Your task to perform on an android device: stop showing notifications on the lock screen Image 0: 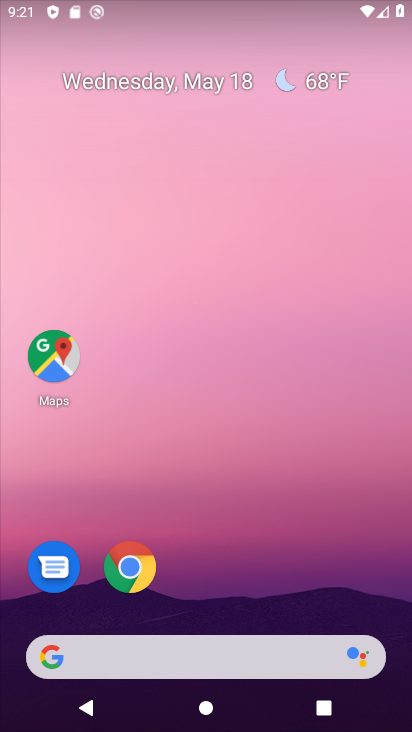
Step 0: drag from (229, 585) to (212, 169)
Your task to perform on an android device: stop showing notifications on the lock screen Image 1: 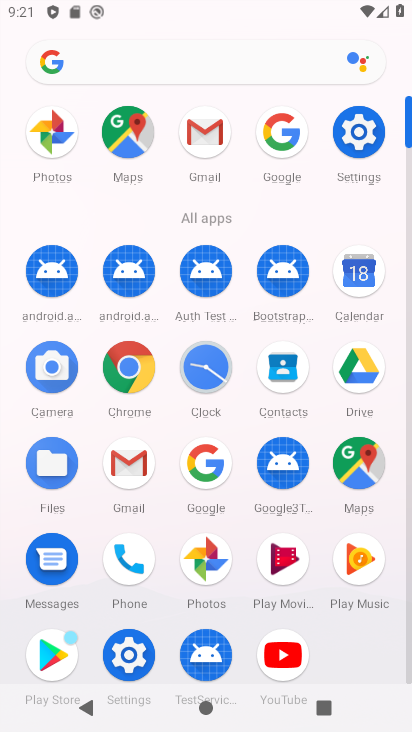
Step 1: click (368, 128)
Your task to perform on an android device: stop showing notifications on the lock screen Image 2: 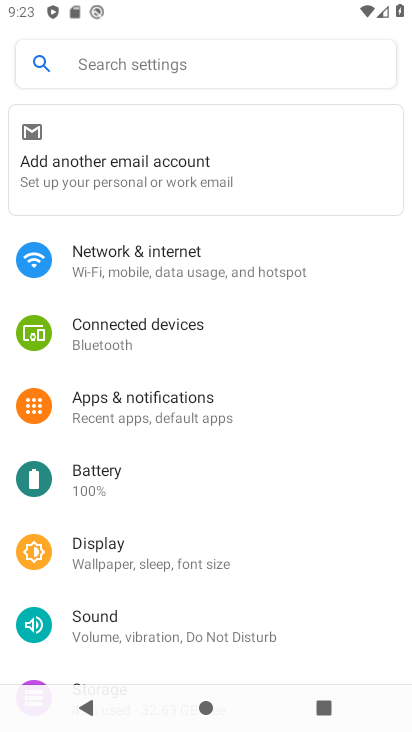
Step 2: click (231, 420)
Your task to perform on an android device: stop showing notifications on the lock screen Image 3: 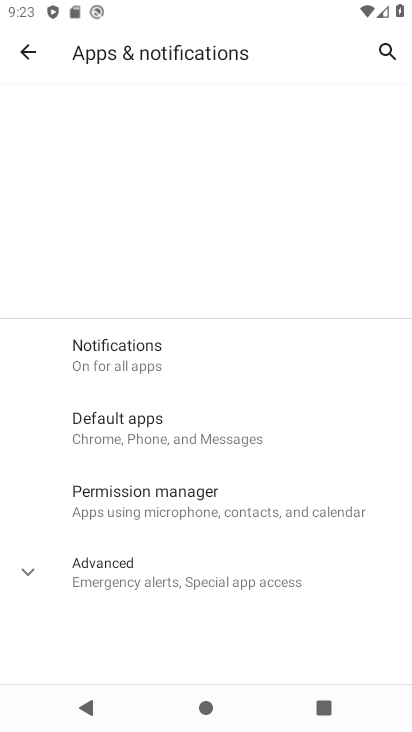
Step 3: click (127, 368)
Your task to perform on an android device: stop showing notifications on the lock screen Image 4: 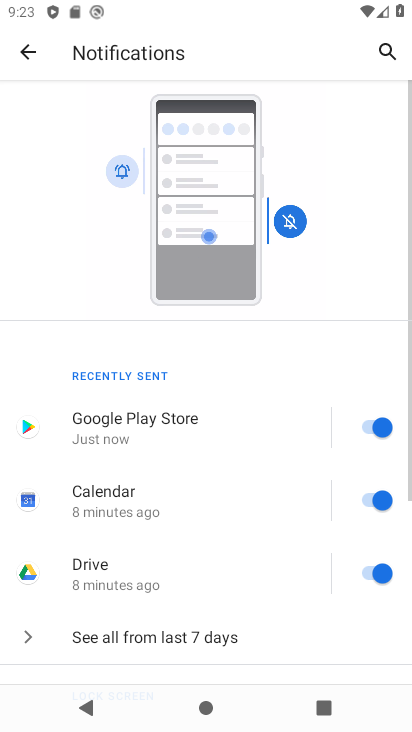
Step 4: drag from (192, 514) to (151, 196)
Your task to perform on an android device: stop showing notifications on the lock screen Image 5: 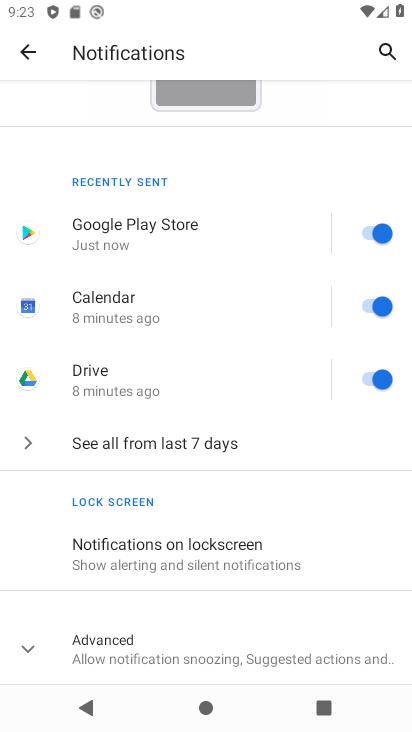
Step 5: click (282, 546)
Your task to perform on an android device: stop showing notifications on the lock screen Image 6: 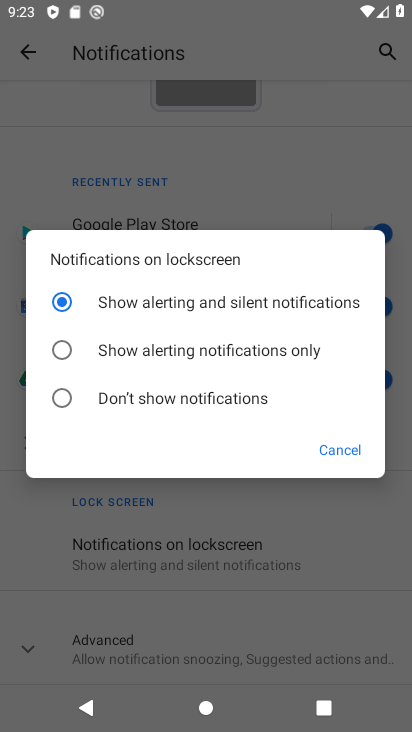
Step 6: click (145, 399)
Your task to perform on an android device: stop showing notifications on the lock screen Image 7: 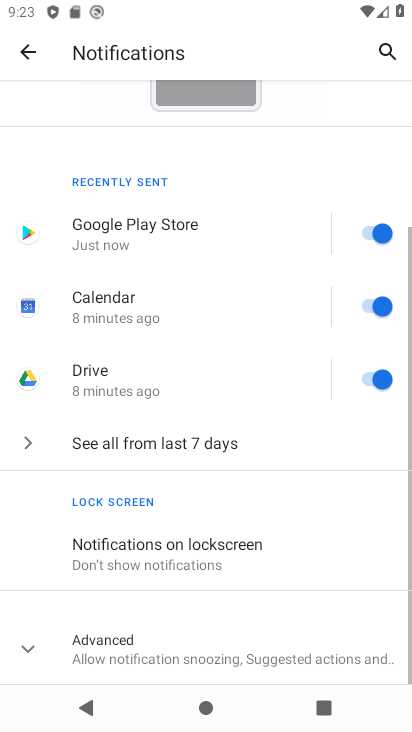
Step 7: task complete